Your task to perform on an android device: Go to privacy settings Image 0: 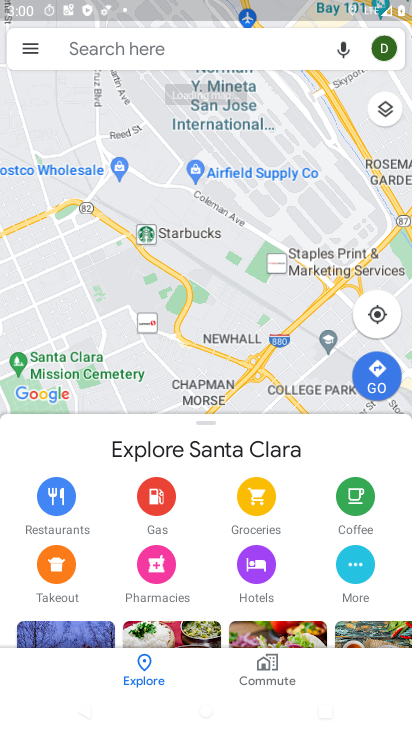
Step 0: press home button
Your task to perform on an android device: Go to privacy settings Image 1: 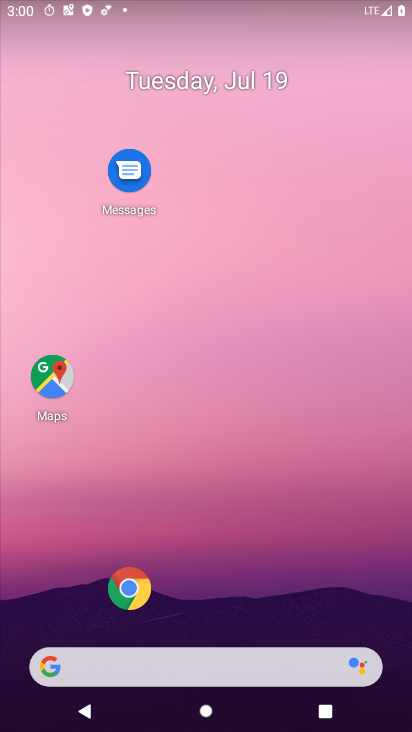
Step 1: drag from (64, 659) to (211, 14)
Your task to perform on an android device: Go to privacy settings Image 2: 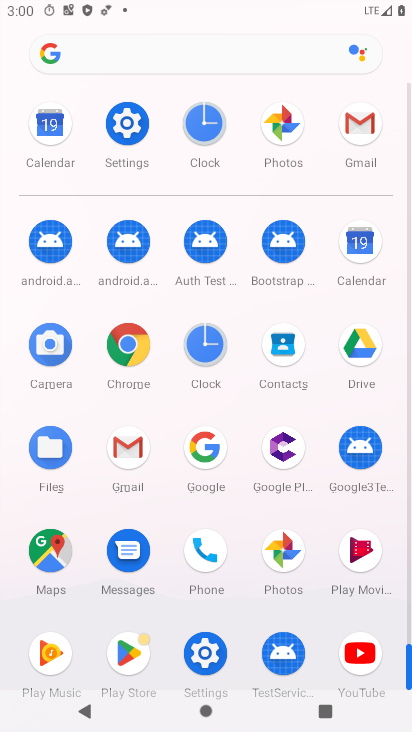
Step 2: click (214, 637)
Your task to perform on an android device: Go to privacy settings Image 3: 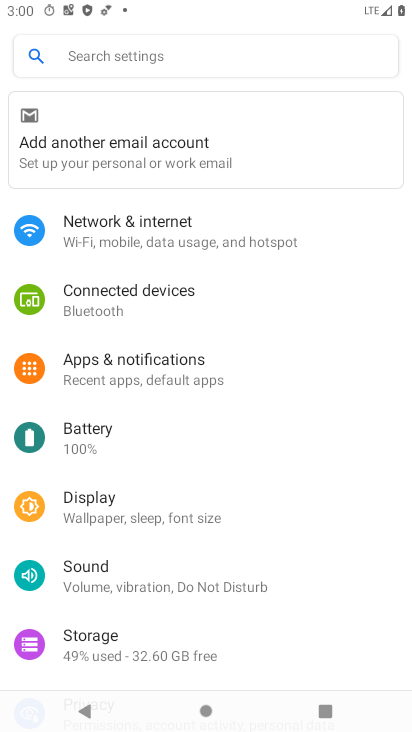
Step 3: drag from (131, 639) to (191, 323)
Your task to perform on an android device: Go to privacy settings Image 4: 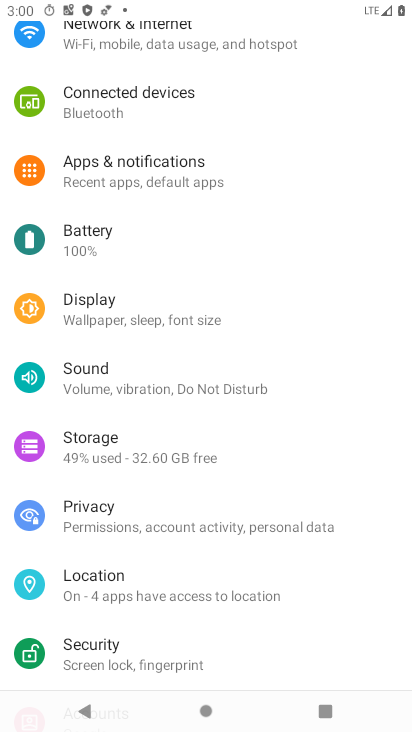
Step 4: drag from (181, 604) to (200, 516)
Your task to perform on an android device: Go to privacy settings Image 5: 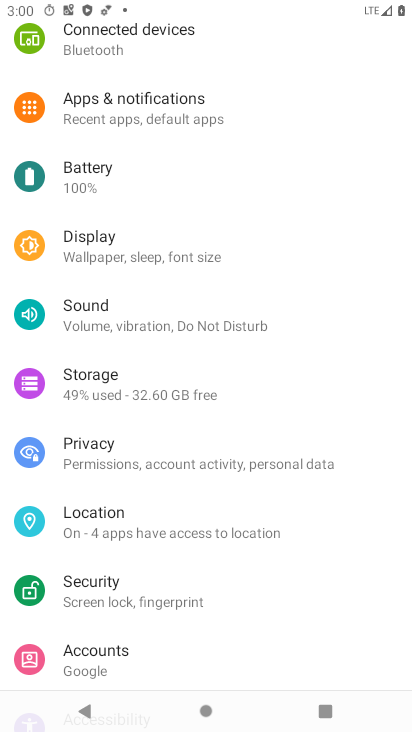
Step 5: click (126, 449)
Your task to perform on an android device: Go to privacy settings Image 6: 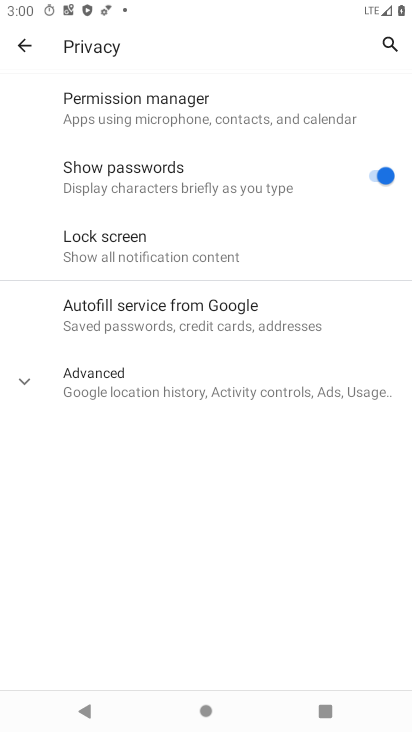
Step 6: task complete